Your task to perform on an android device: turn on data saver in the chrome app Image 0: 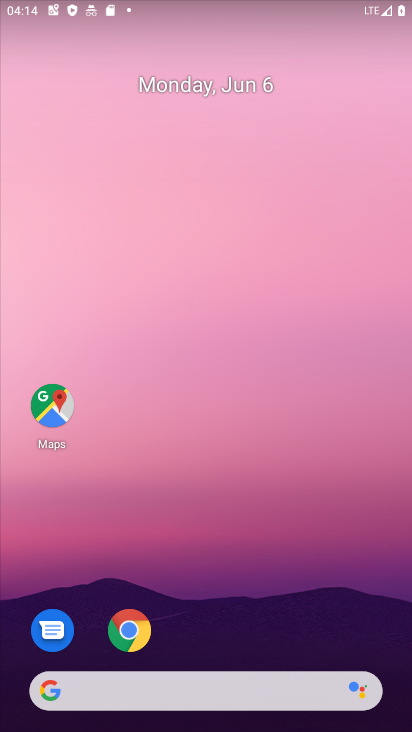
Step 0: drag from (380, 616) to (367, 112)
Your task to perform on an android device: turn on data saver in the chrome app Image 1: 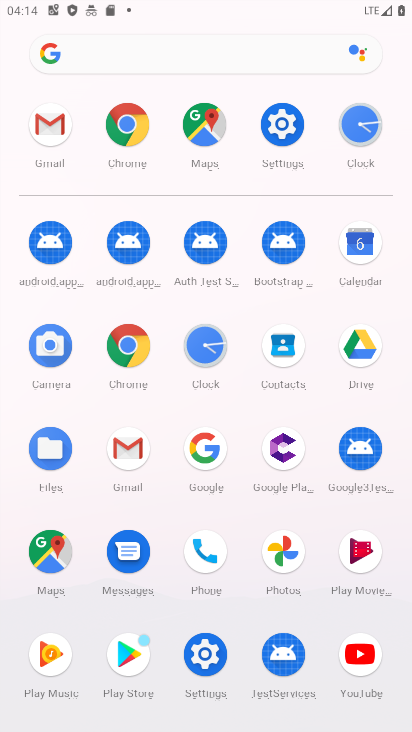
Step 1: click (60, 144)
Your task to perform on an android device: turn on data saver in the chrome app Image 2: 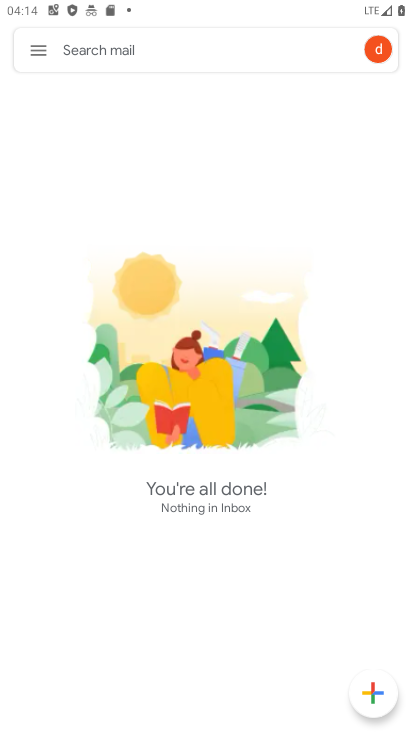
Step 2: click (21, 48)
Your task to perform on an android device: turn on data saver in the chrome app Image 3: 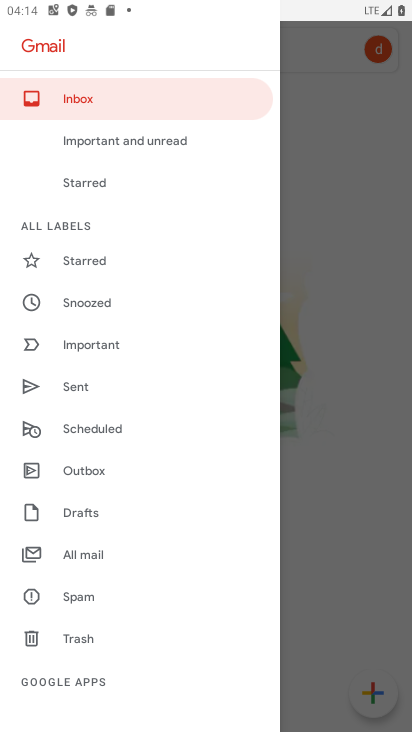
Step 3: press home button
Your task to perform on an android device: turn on data saver in the chrome app Image 4: 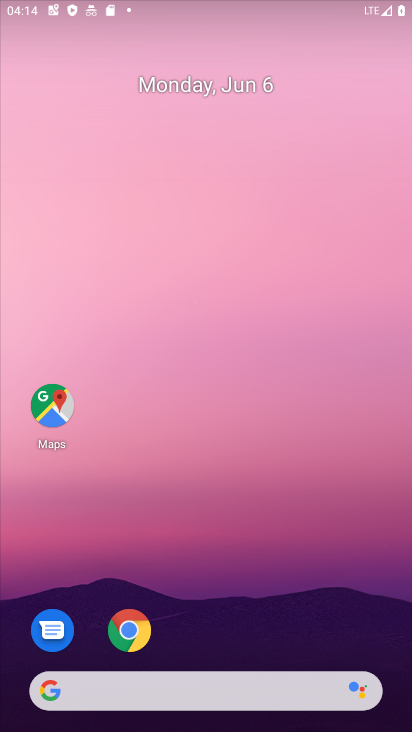
Step 4: click (228, 663)
Your task to perform on an android device: turn on data saver in the chrome app Image 5: 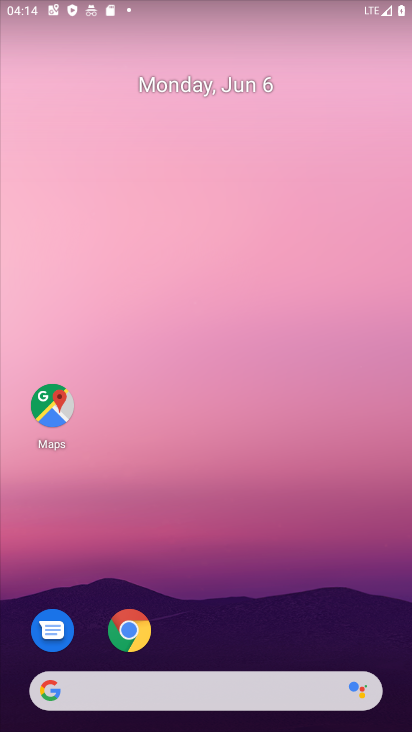
Step 5: click (137, 634)
Your task to perform on an android device: turn on data saver in the chrome app Image 6: 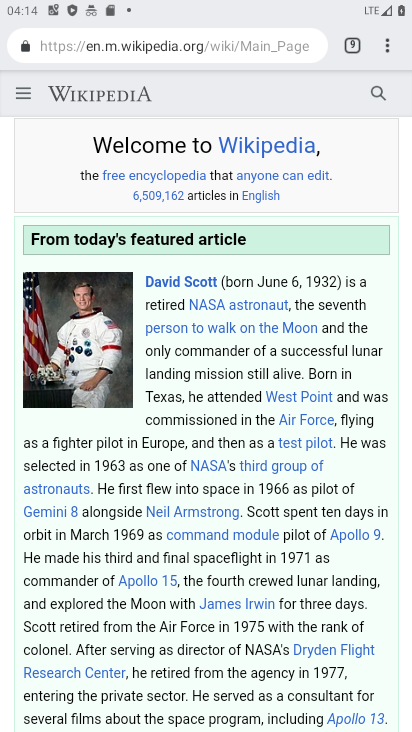
Step 6: drag from (393, 50) to (195, 545)
Your task to perform on an android device: turn on data saver in the chrome app Image 7: 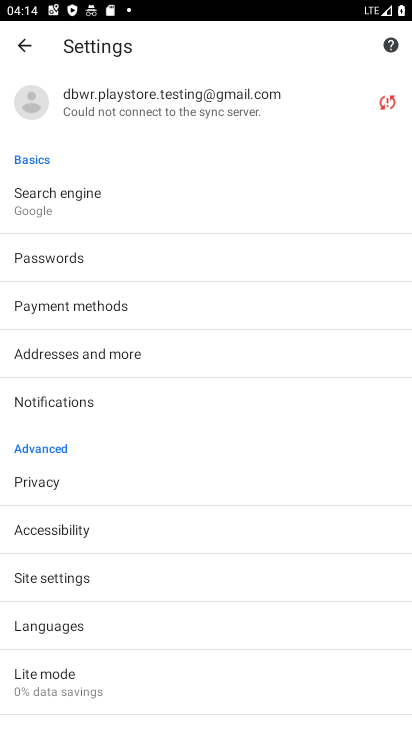
Step 7: click (55, 678)
Your task to perform on an android device: turn on data saver in the chrome app Image 8: 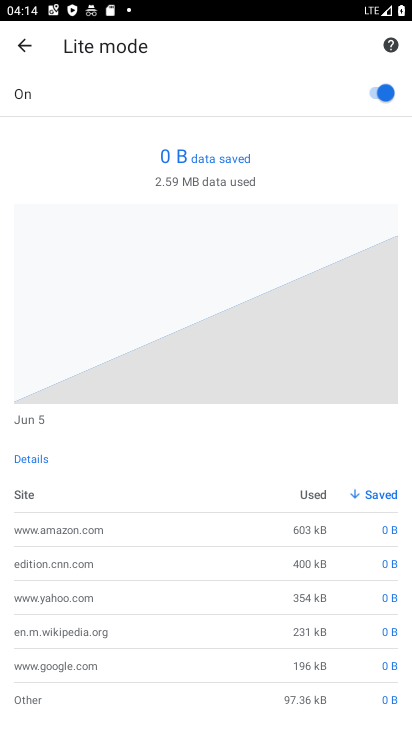
Step 8: task complete